Your task to perform on an android device: clear history in the chrome app Image 0: 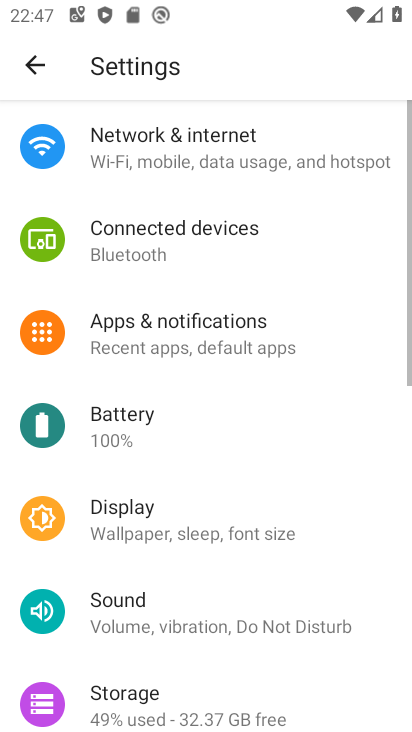
Step 0: press home button
Your task to perform on an android device: clear history in the chrome app Image 1: 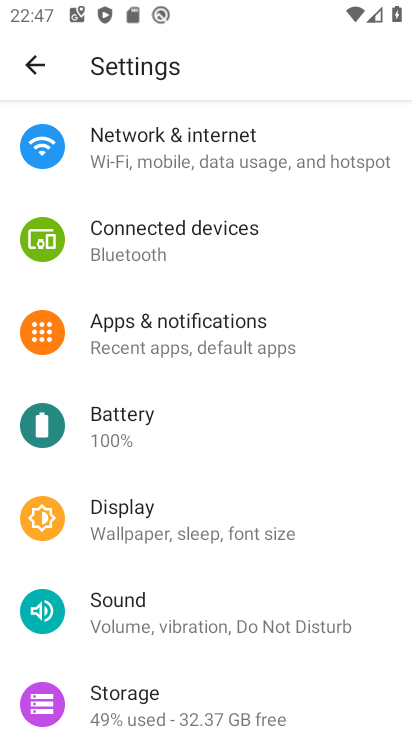
Step 1: press home button
Your task to perform on an android device: clear history in the chrome app Image 2: 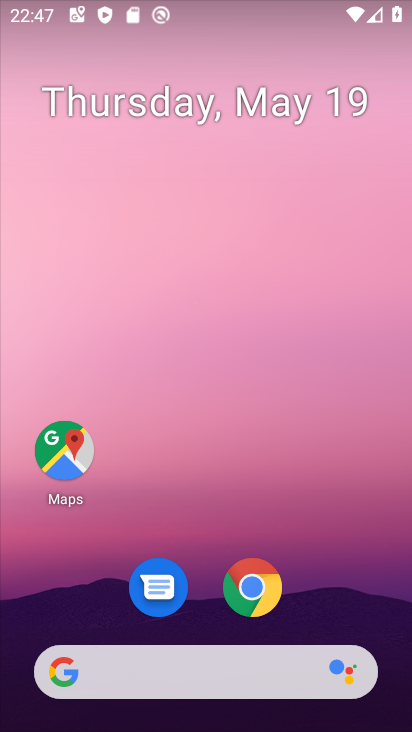
Step 2: drag from (229, 703) to (294, 144)
Your task to perform on an android device: clear history in the chrome app Image 3: 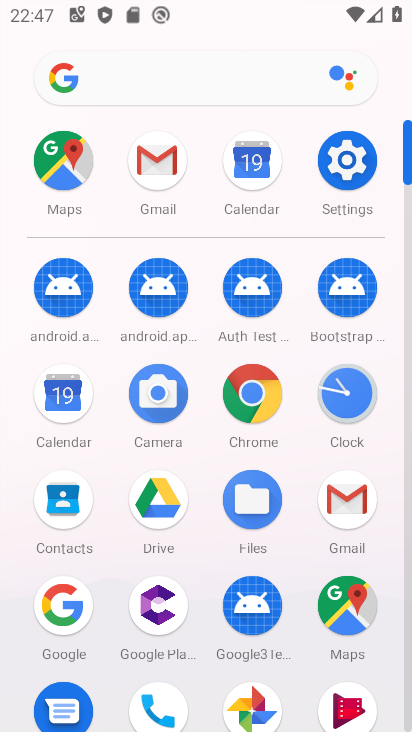
Step 3: click (245, 395)
Your task to perform on an android device: clear history in the chrome app Image 4: 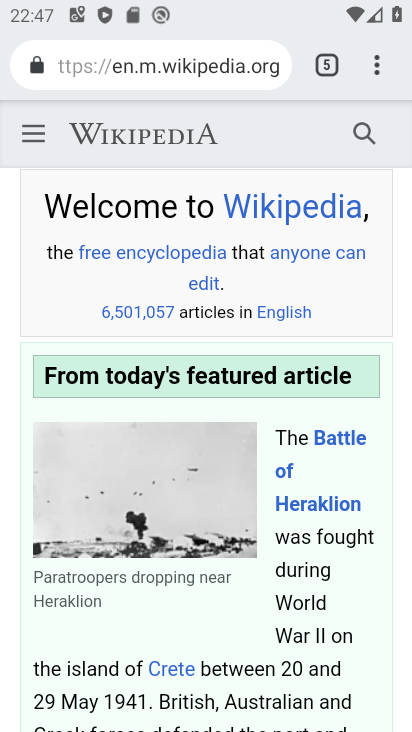
Step 4: click (358, 61)
Your task to perform on an android device: clear history in the chrome app Image 5: 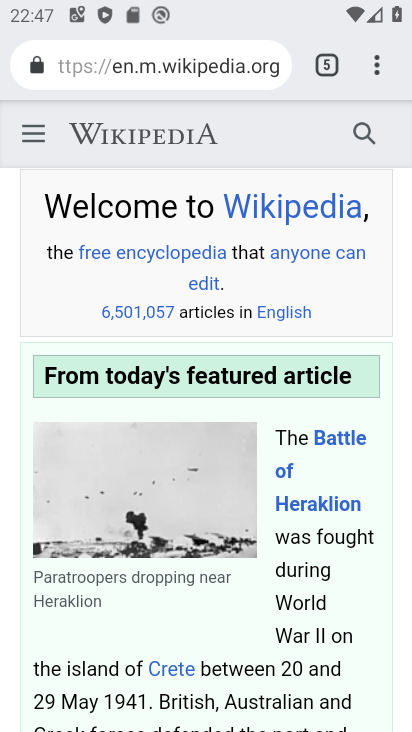
Step 5: click (379, 87)
Your task to perform on an android device: clear history in the chrome app Image 6: 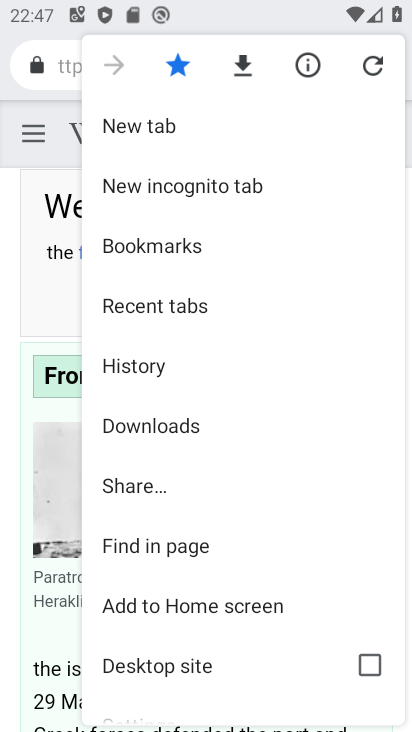
Step 6: drag from (199, 638) to (197, 472)
Your task to perform on an android device: clear history in the chrome app Image 7: 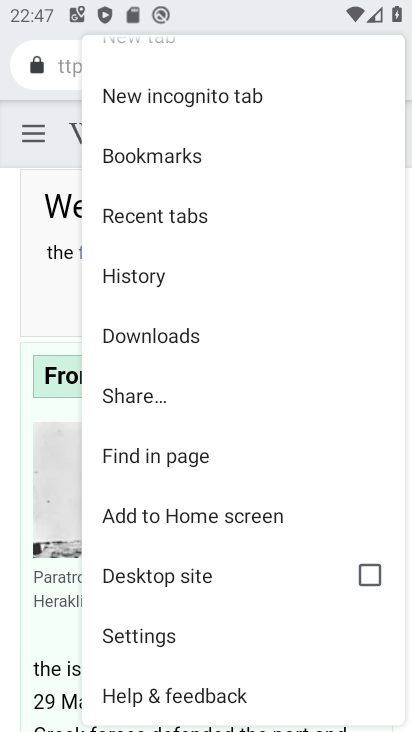
Step 7: click (193, 627)
Your task to perform on an android device: clear history in the chrome app Image 8: 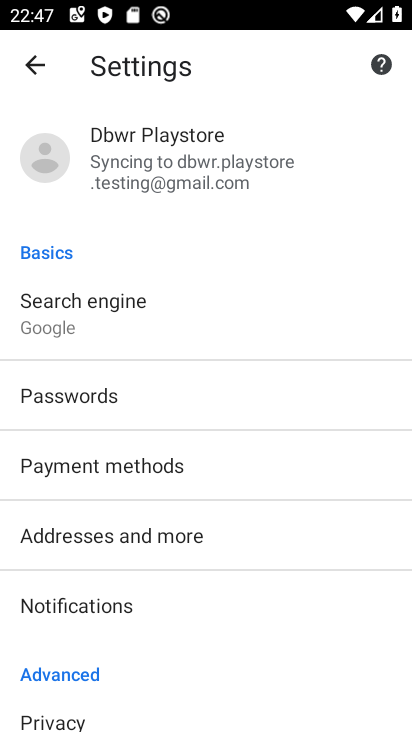
Step 8: drag from (179, 548) to (239, 422)
Your task to perform on an android device: clear history in the chrome app Image 9: 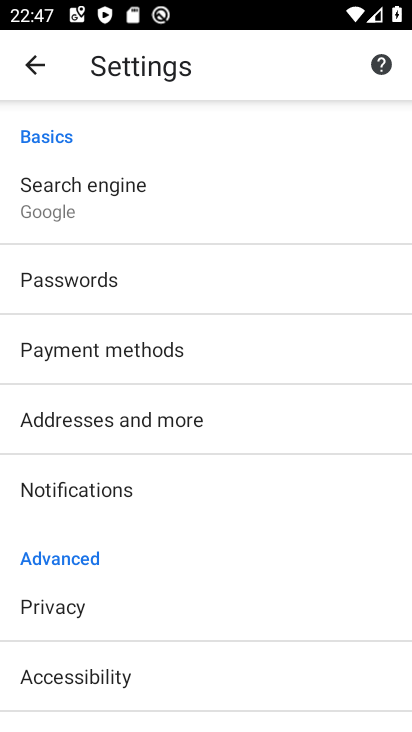
Step 9: drag from (156, 578) to (187, 415)
Your task to perform on an android device: clear history in the chrome app Image 10: 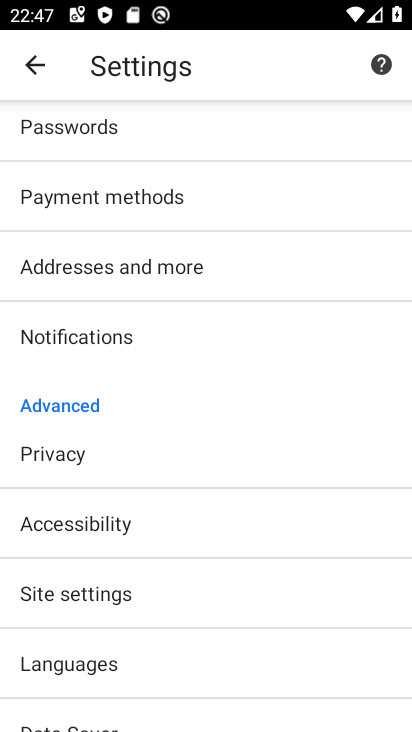
Step 10: click (83, 459)
Your task to perform on an android device: clear history in the chrome app Image 11: 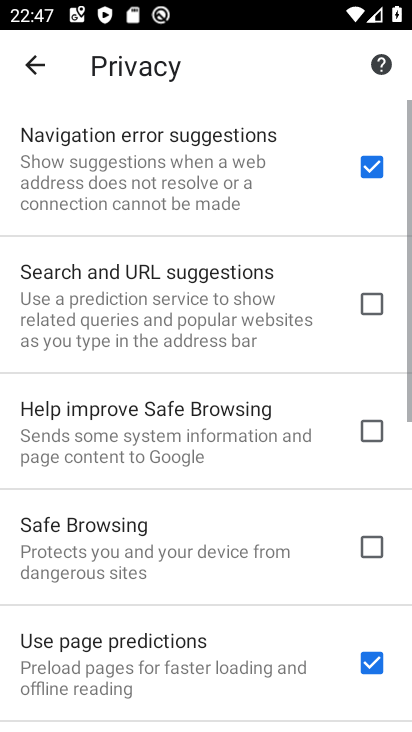
Step 11: drag from (188, 597) to (140, 288)
Your task to perform on an android device: clear history in the chrome app Image 12: 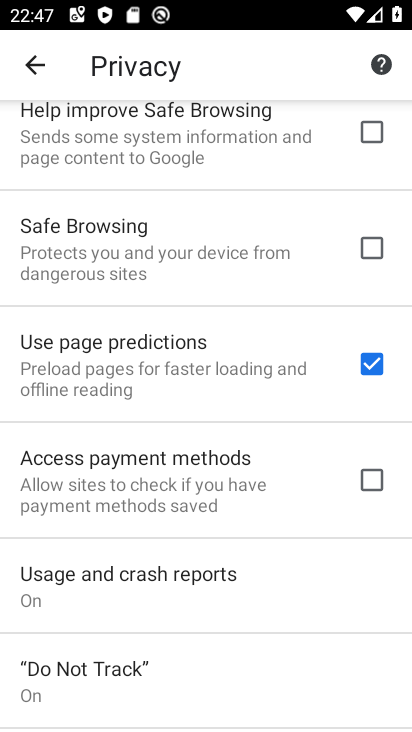
Step 12: drag from (169, 594) to (155, 275)
Your task to perform on an android device: clear history in the chrome app Image 13: 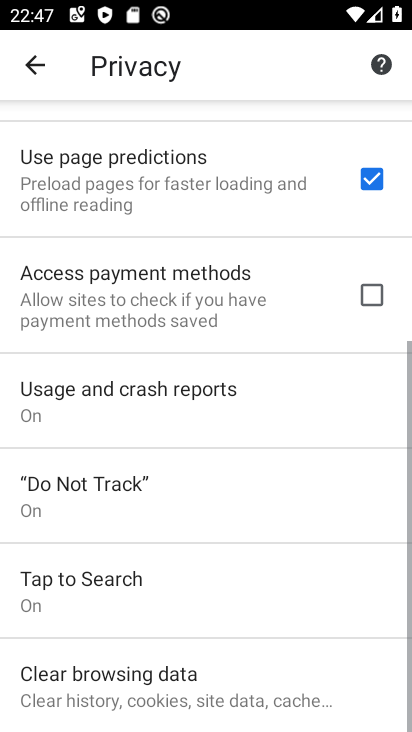
Step 13: click (148, 667)
Your task to perform on an android device: clear history in the chrome app Image 14: 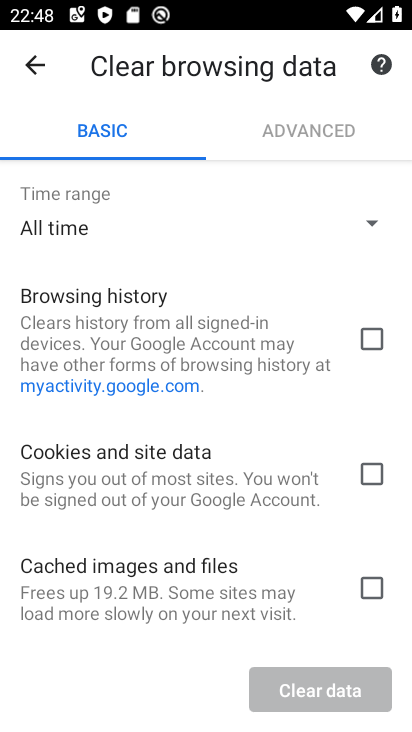
Step 14: click (385, 346)
Your task to perform on an android device: clear history in the chrome app Image 15: 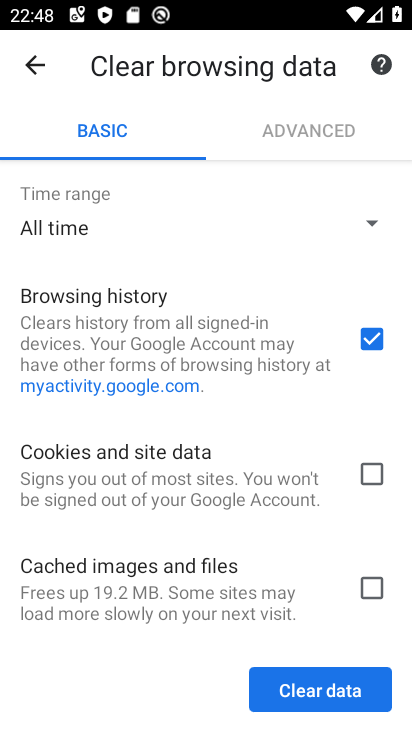
Step 15: click (317, 689)
Your task to perform on an android device: clear history in the chrome app Image 16: 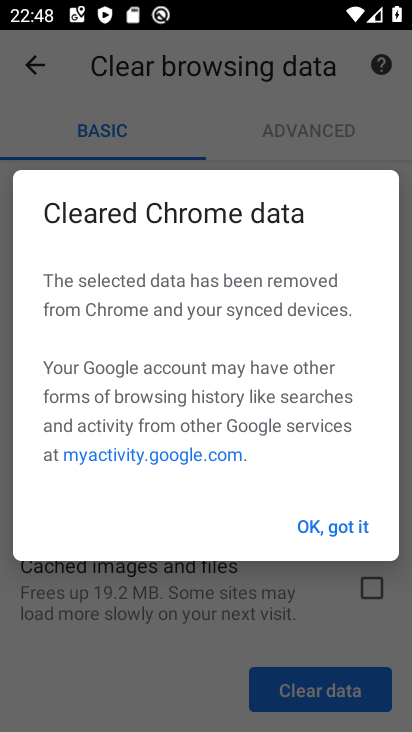
Step 16: task complete